Your task to perform on an android device: remove spam from my inbox in the gmail app Image 0: 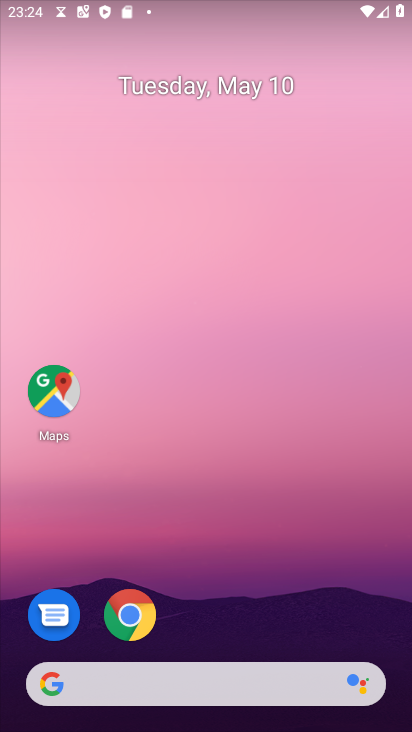
Step 0: drag from (258, 597) to (216, 61)
Your task to perform on an android device: remove spam from my inbox in the gmail app Image 1: 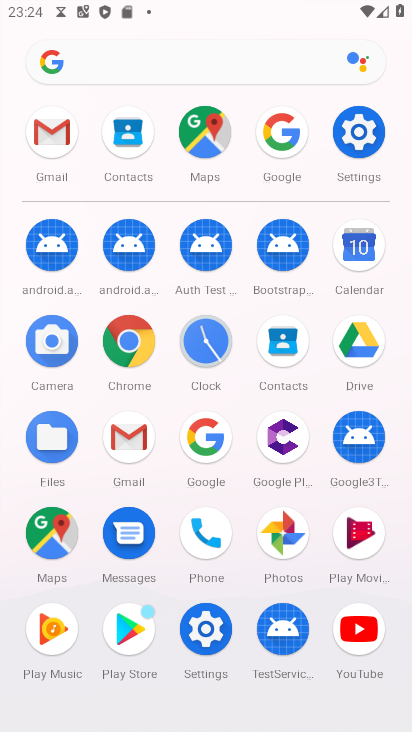
Step 1: click (47, 131)
Your task to perform on an android device: remove spam from my inbox in the gmail app Image 2: 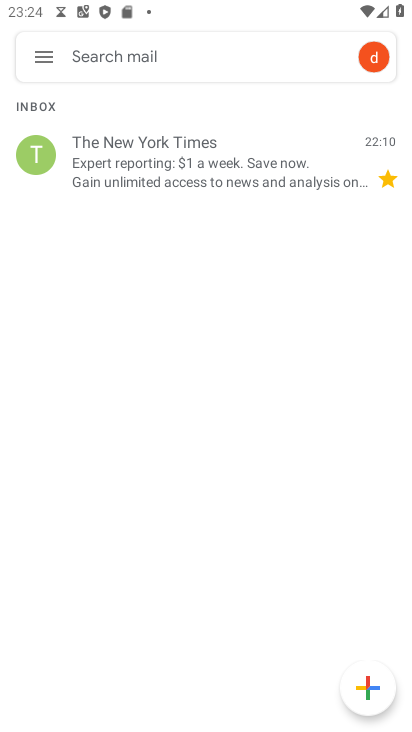
Step 2: click (35, 59)
Your task to perform on an android device: remove spam from my inbox in the gmail app Image 3: 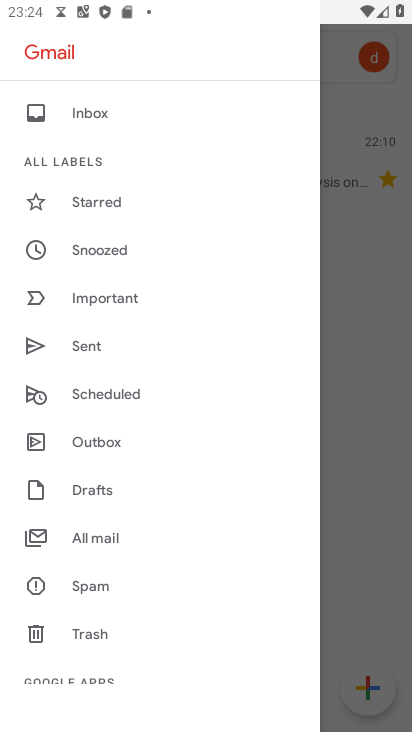
Step 3: click (119, 595)
Your task to perform on an android device: remove spam from my inbox in the gmail app Image 4: 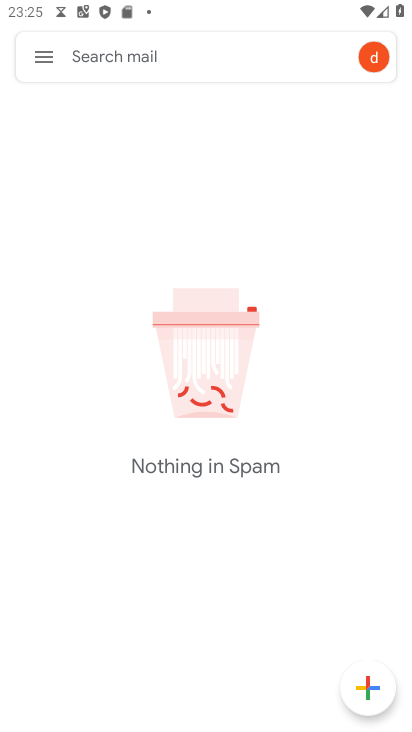
Step 4: task complete